Your task to perform on an android device: Add logitech g903 to the cart on walmart.com Image 0: 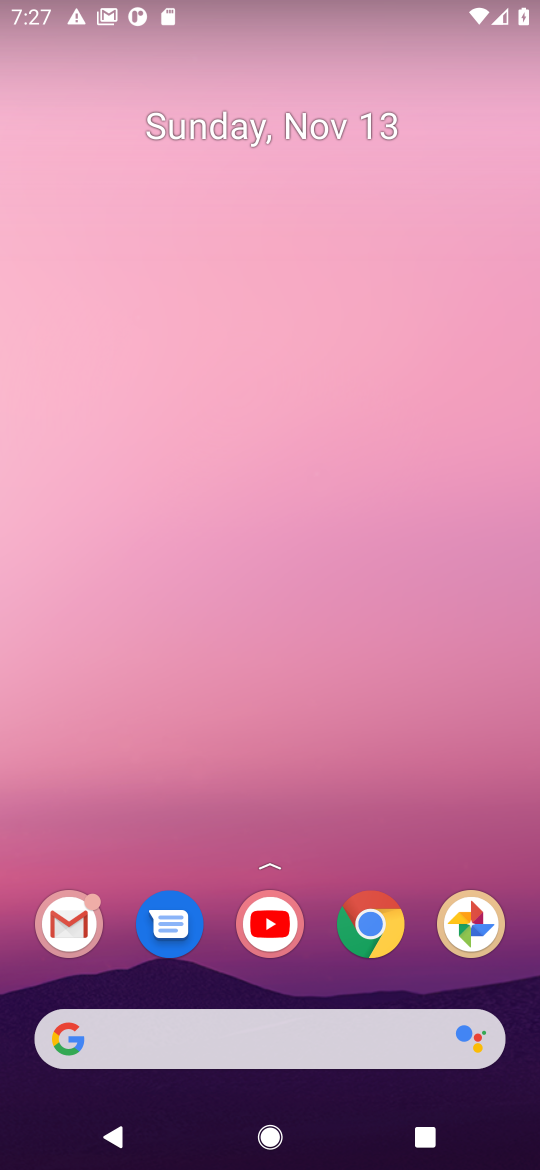
Step 0: click (366, 929)
Your task to perform on an android device: Add logitech g903 to the cart on walmart.com Image 1: 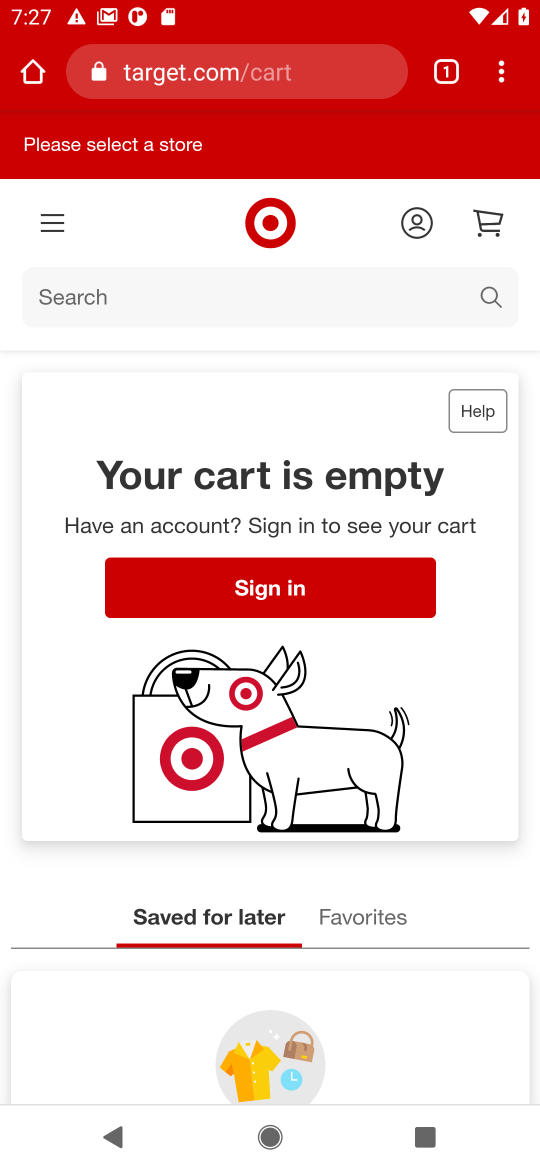
Step 1: click (197, 60)
Your task to perform on an android device: Add logitech g903 to the cart on walmart.com Image 2: 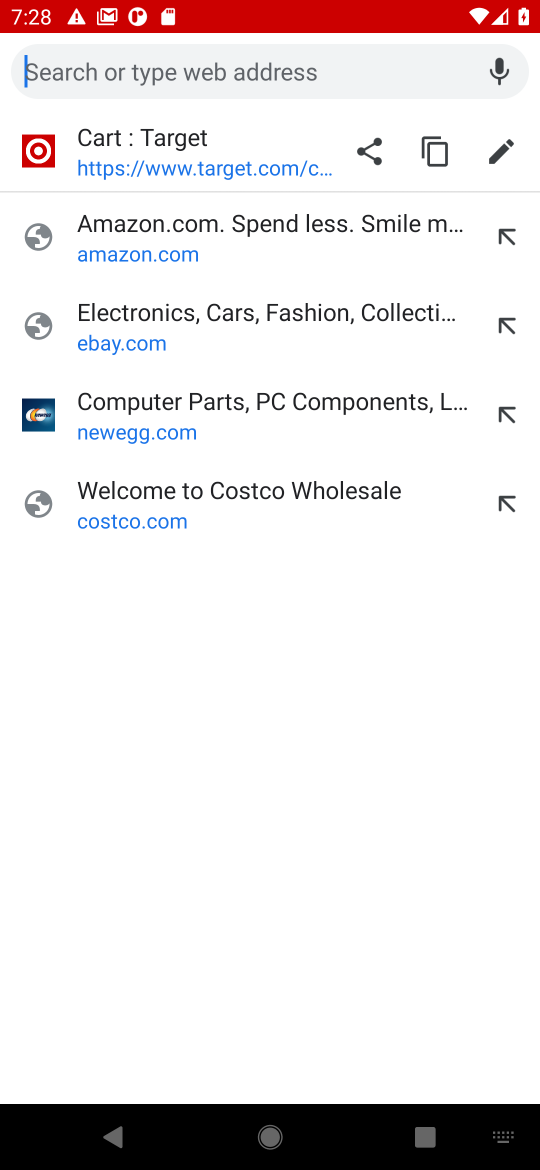
Step 2: type "walmart.com"
Your task to perform on an android device: Add logitech g903 to the cart on walmart.com Image 3: 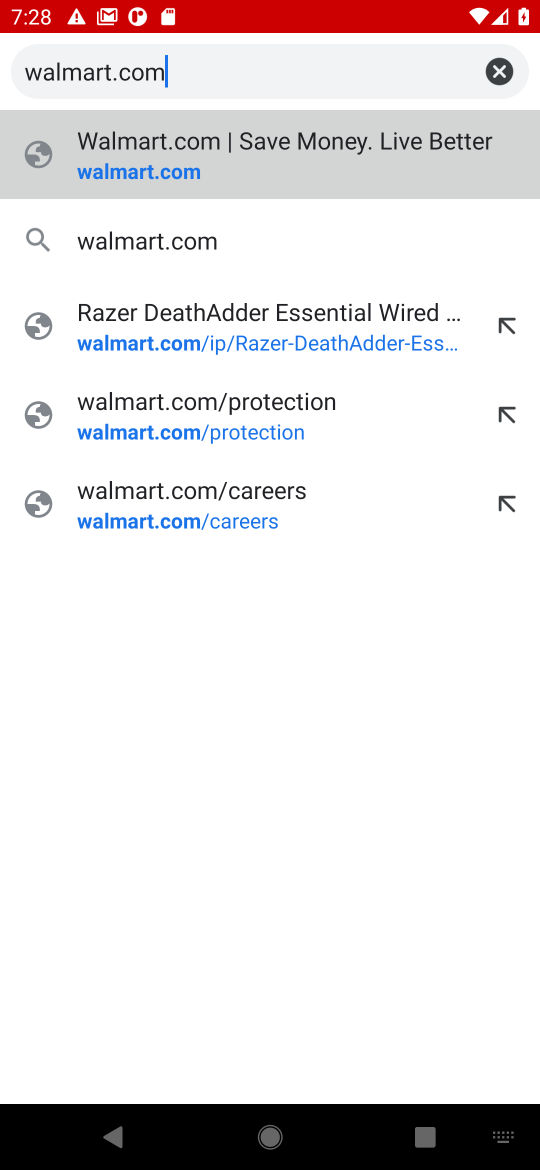
Step 3: click (109, 182)
Your task to perform on an android device: Add logitech g903 to the cart on walmart.com Image 4: 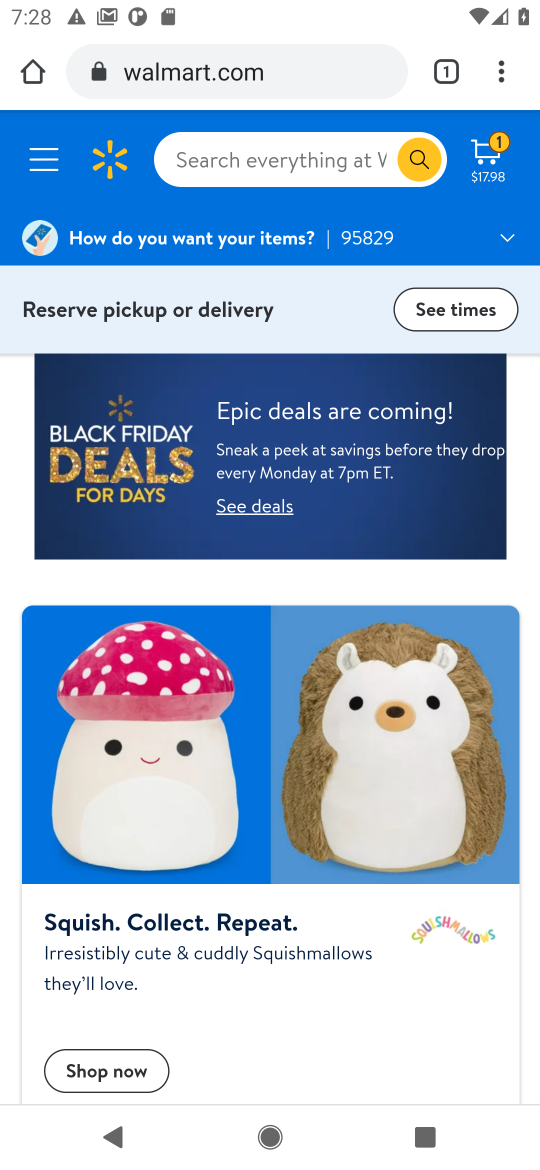
Step 4: click (221, 159)
Your task to perform on an android device: Add logitech g903 to the cart on walmart.com Image 5: 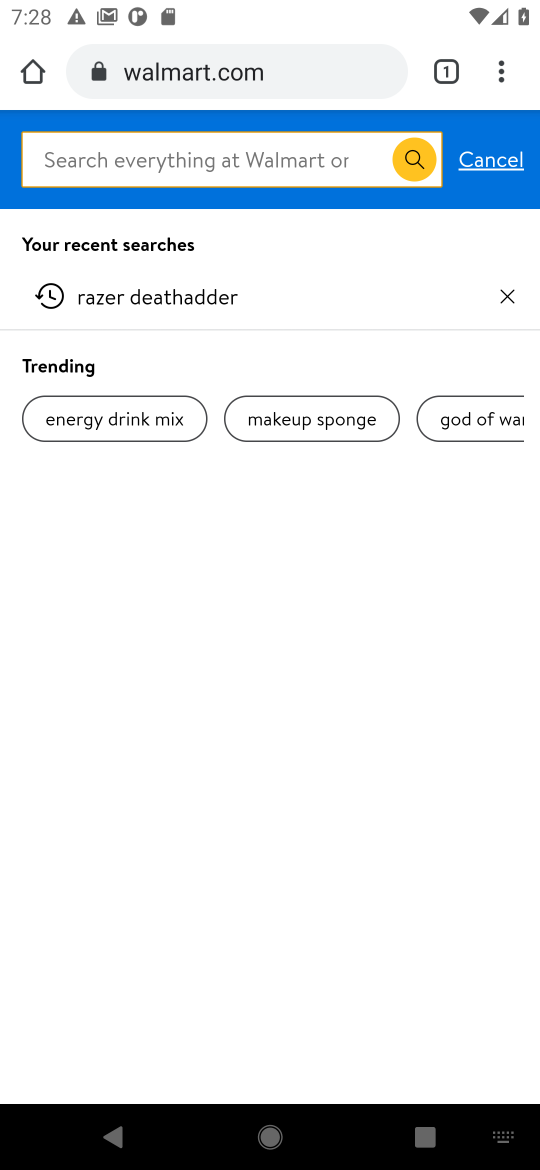
Step 5: type "logitech g903"
Your task to perform on an android device: Add logitech g903 to the cart on walmart.com Image 6: 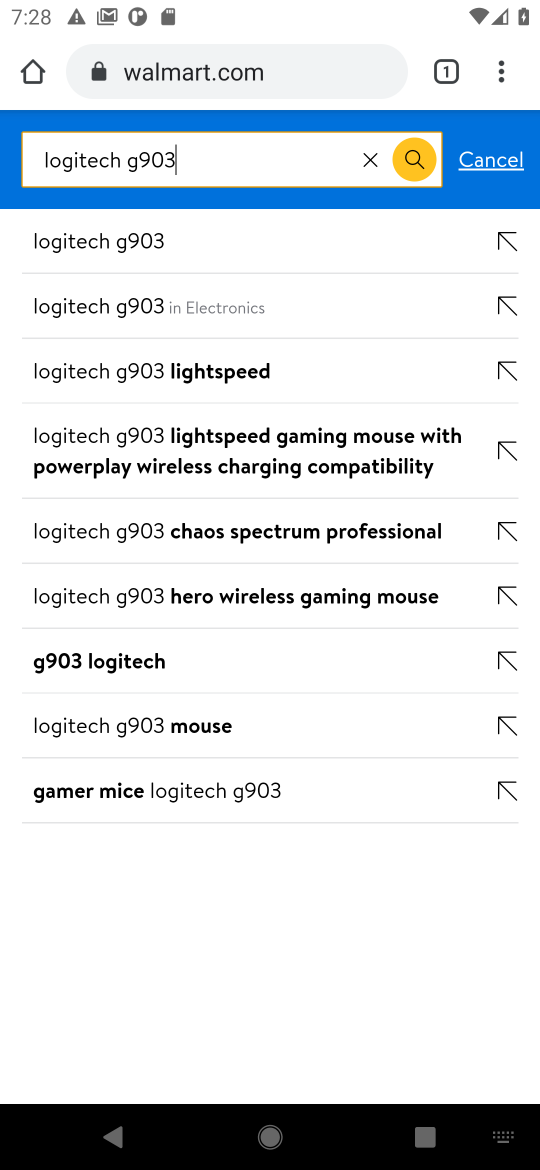
Step 6: click (80, 252)
Your task to perform on an android device: Add logitech g903 to the cart on walmart.com Image 7: 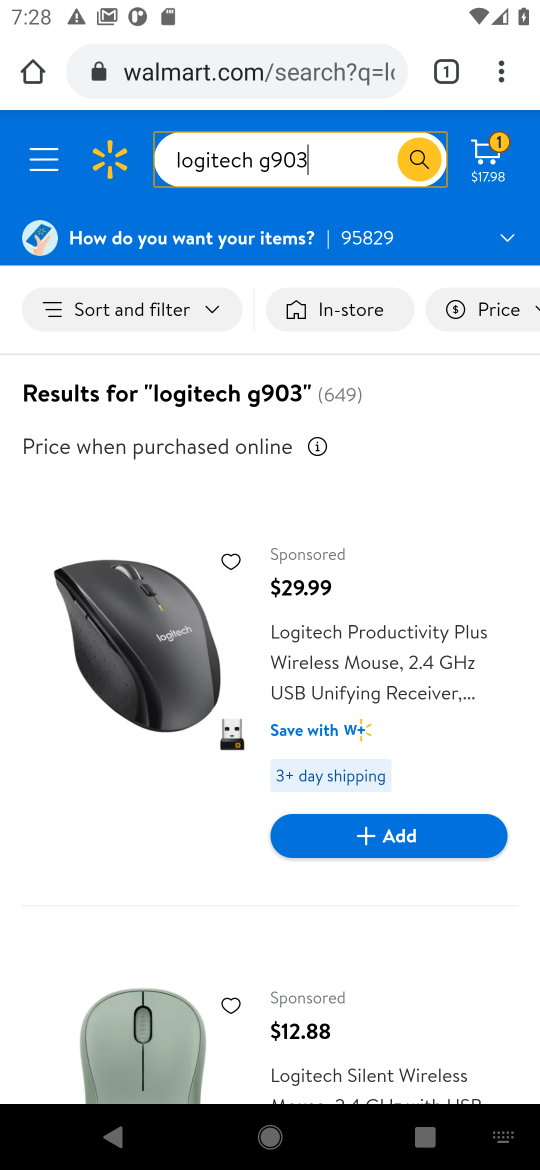
Step 7: drag from (91, 887) to (100, 324)
Your task to perform on an android device: Add logitech g903 to the cart on walmart.com Image 8: 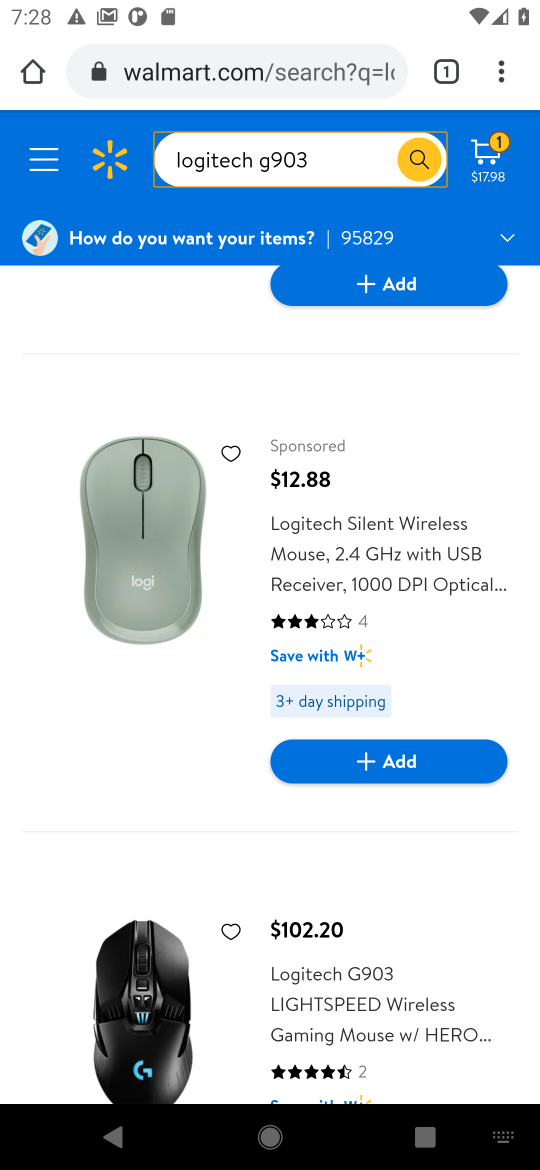
Step 8: drag from (102, 795) to (118, 243)
Your task to perform on an android device: Add logitech g903 to the cart on walmart.com Image 9: 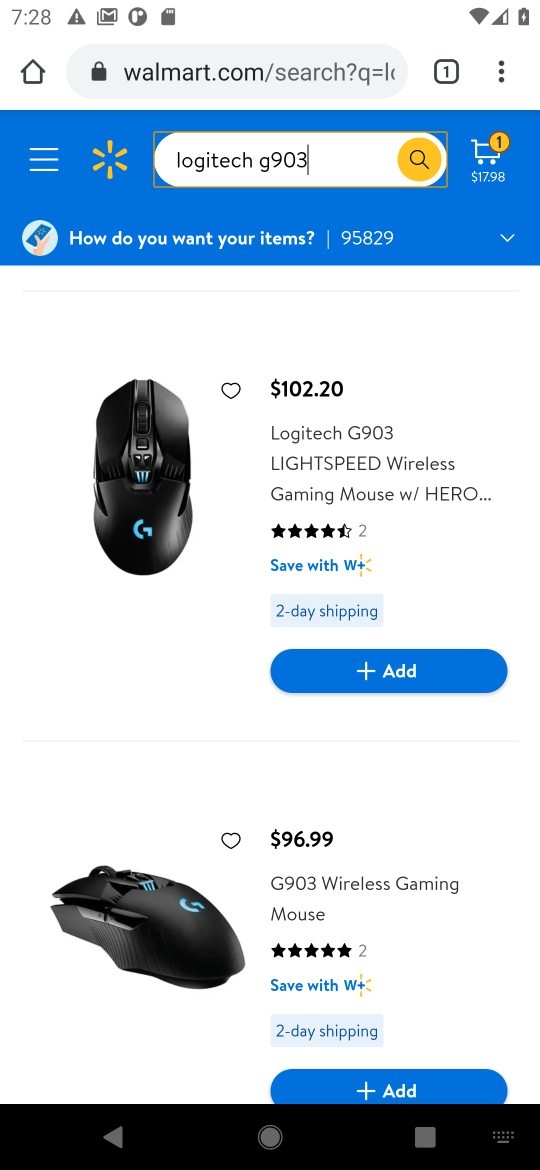
Step 9: drag from (156, 924) to (195, 615)
Your task to perform on an android device: Add logitech g903 to the cart on walmart.com Image 10: 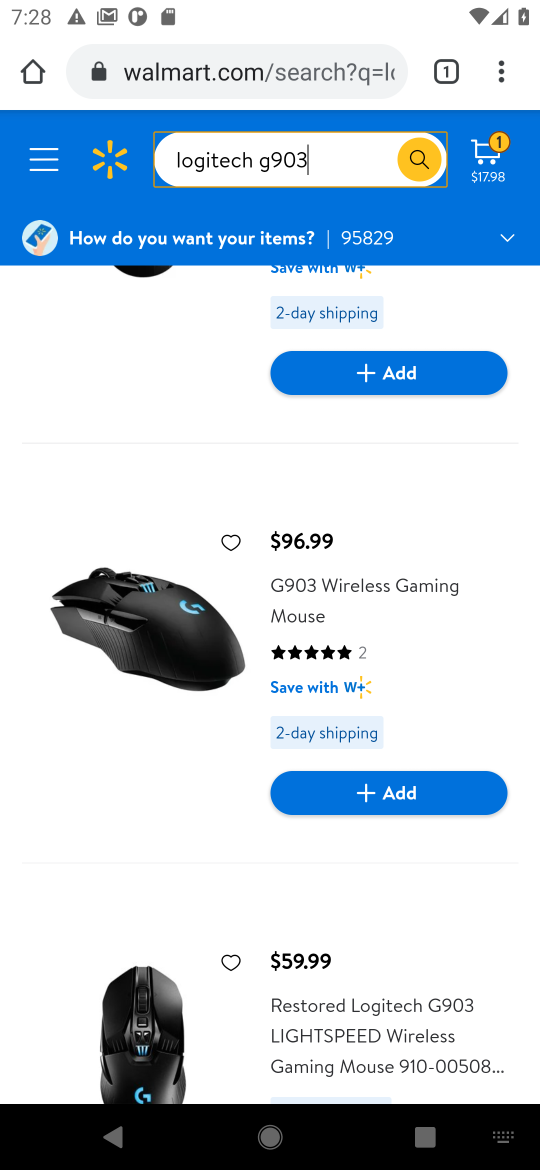
Step 10: drag from (166, 867) to (188, 551)
Your task to perform on an android device: Add logitech g903 to the cart on walmart.com Image 11: 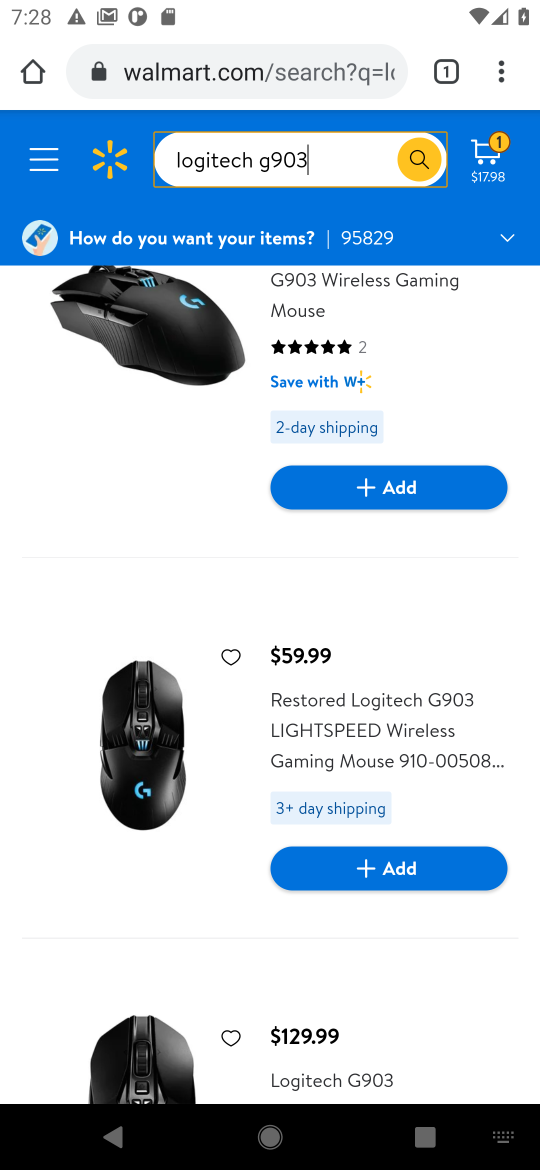
Step 11: click (146, 752)
Your task to perform on an android device: Add logitech g903 to the cart on walmart.com Image 12: 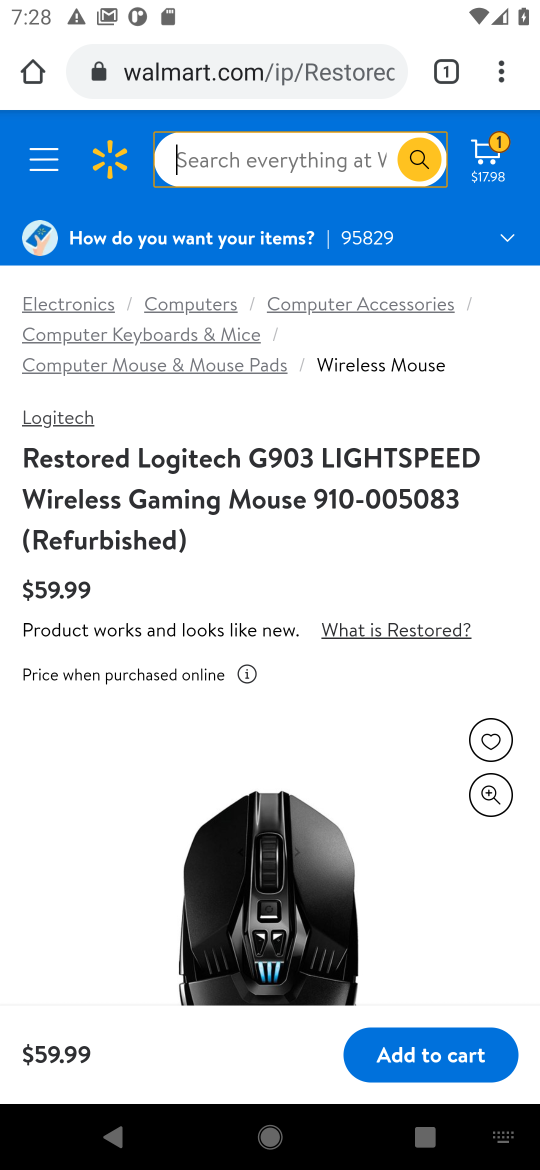
Step 12: click (408, 1062)
Your task to perform on an android device: Add logitech g903 to the cart on walmart.com Image 13: 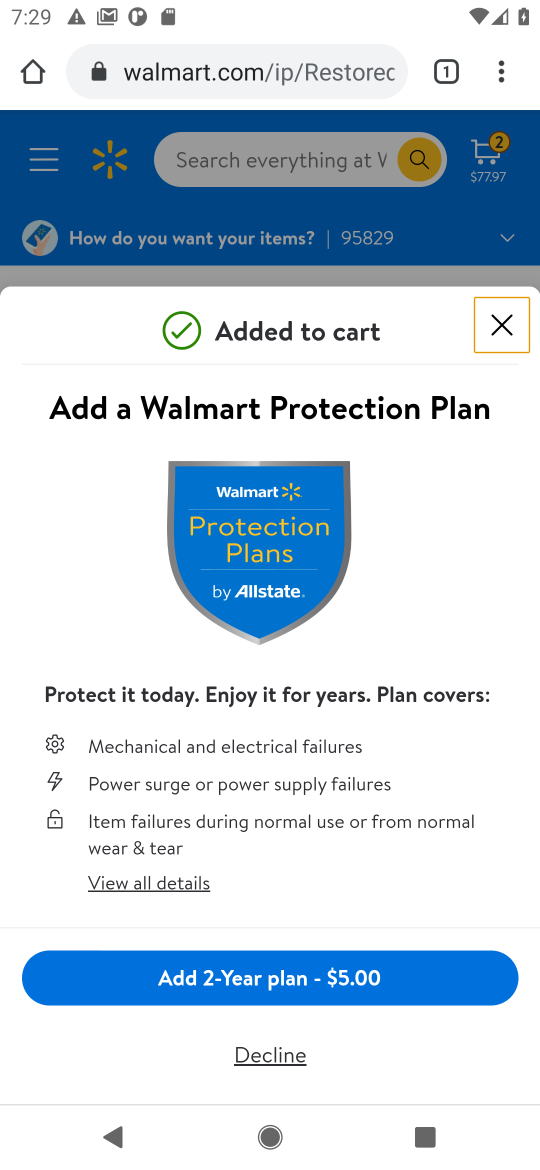
Step 13: task complete